Your task to perform on an android device: Open Google Maps and go to "Timeline" Image 0: 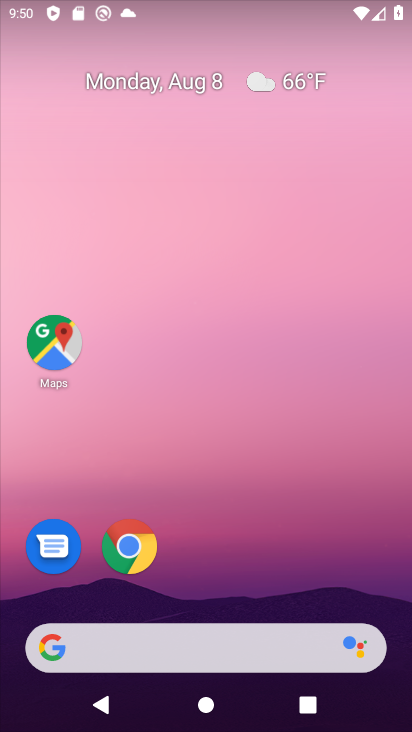
Step 0: drag from (259, 289) to (259, 96)
Your task to perform on an android device: Open Google Maps and go to "Timeline" Image 1: 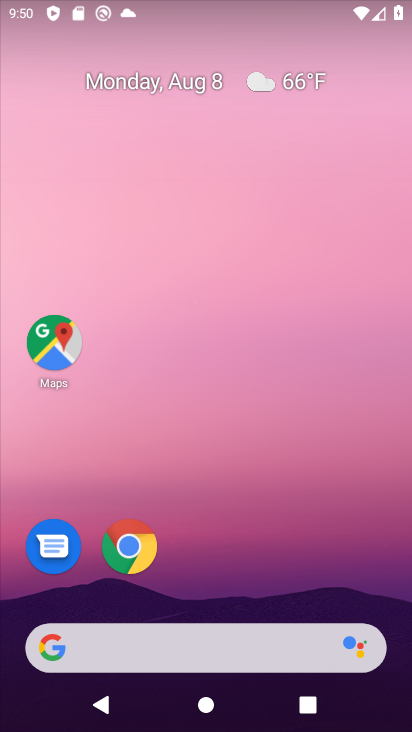
Step 1: click (54, 349)
Your task to perform on an android device: Open Google Maps and go to "Timeline" Image 2: 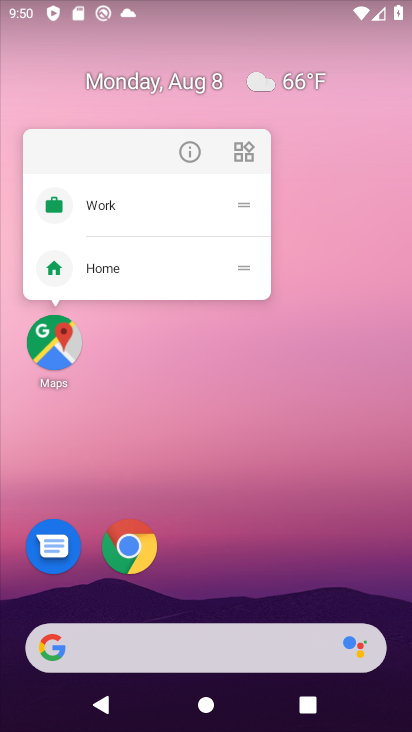
Step 2: click (57, 344)
Your task to perform on an android device: Open Google Maps and go to "Timeline" Image 3: 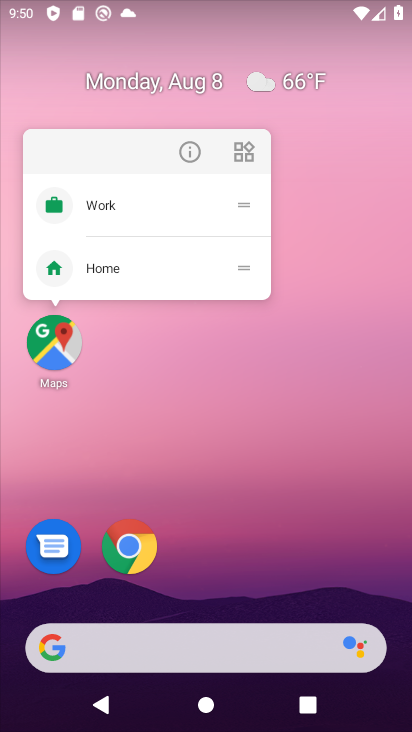
Step 3: click (57, 344)
Your task to perform on an android device: Open Google Maps and go to "Timeline" Image 4: 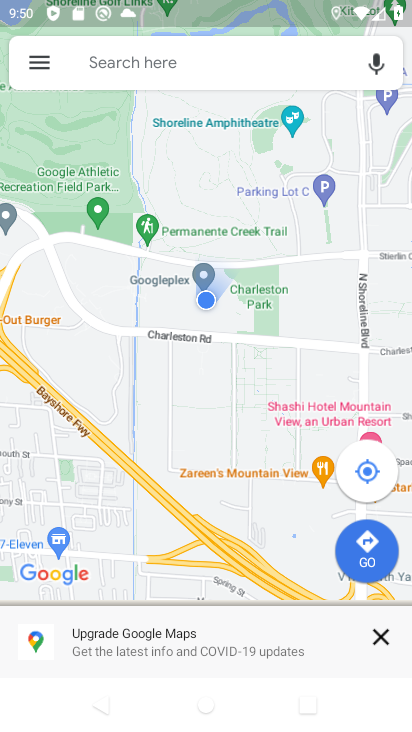
Step 4: click (31, 63)
Your task to perform on an android device: Open Google Maps and go to "Timeline" Image 5: 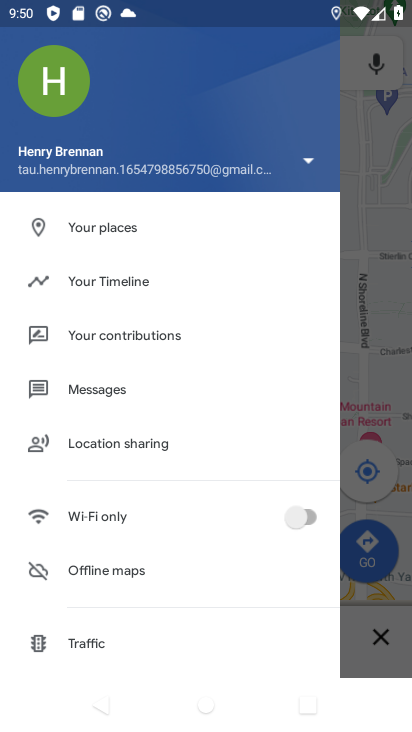
Step 5: click (122, 276)
Your task to perform on an android device: Open Google Maps and go to "Timeline" Image 6: 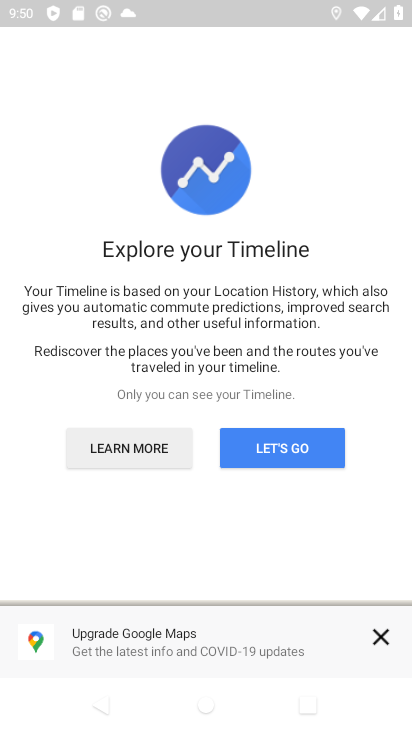
Step 6: click (388, 648)
Your task to perform on an android device: Open Google Maps and go to "Timeline" Image 7: 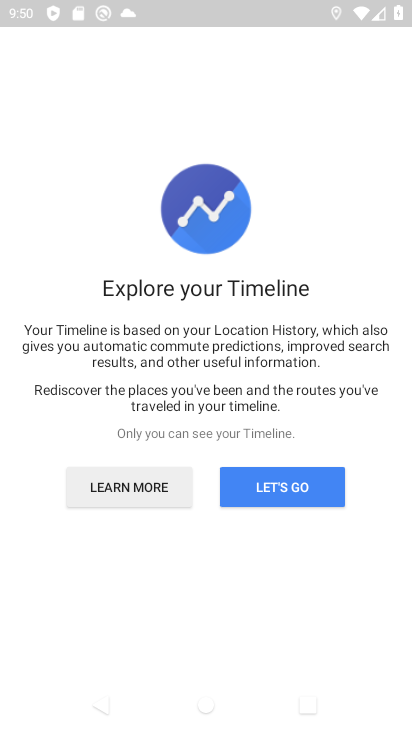
Step 7: click (297, 499)
Your task to perform on an android device: Open Google Maps and go to "Timeline" Image 8: 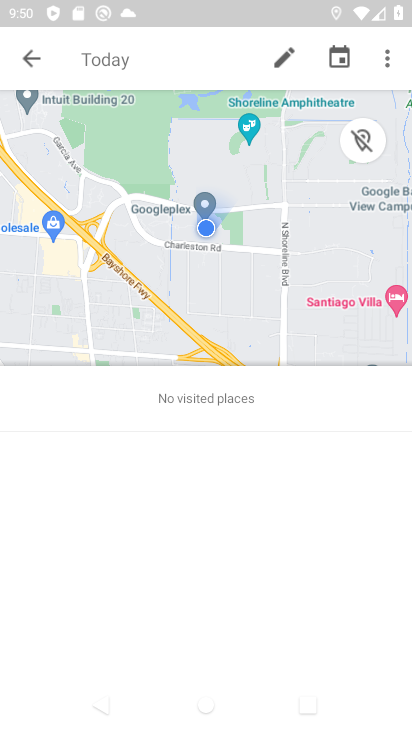
Step 8: task complete